Your task to perform on an android device: Search for a new foundation (skincare) product Image 0: 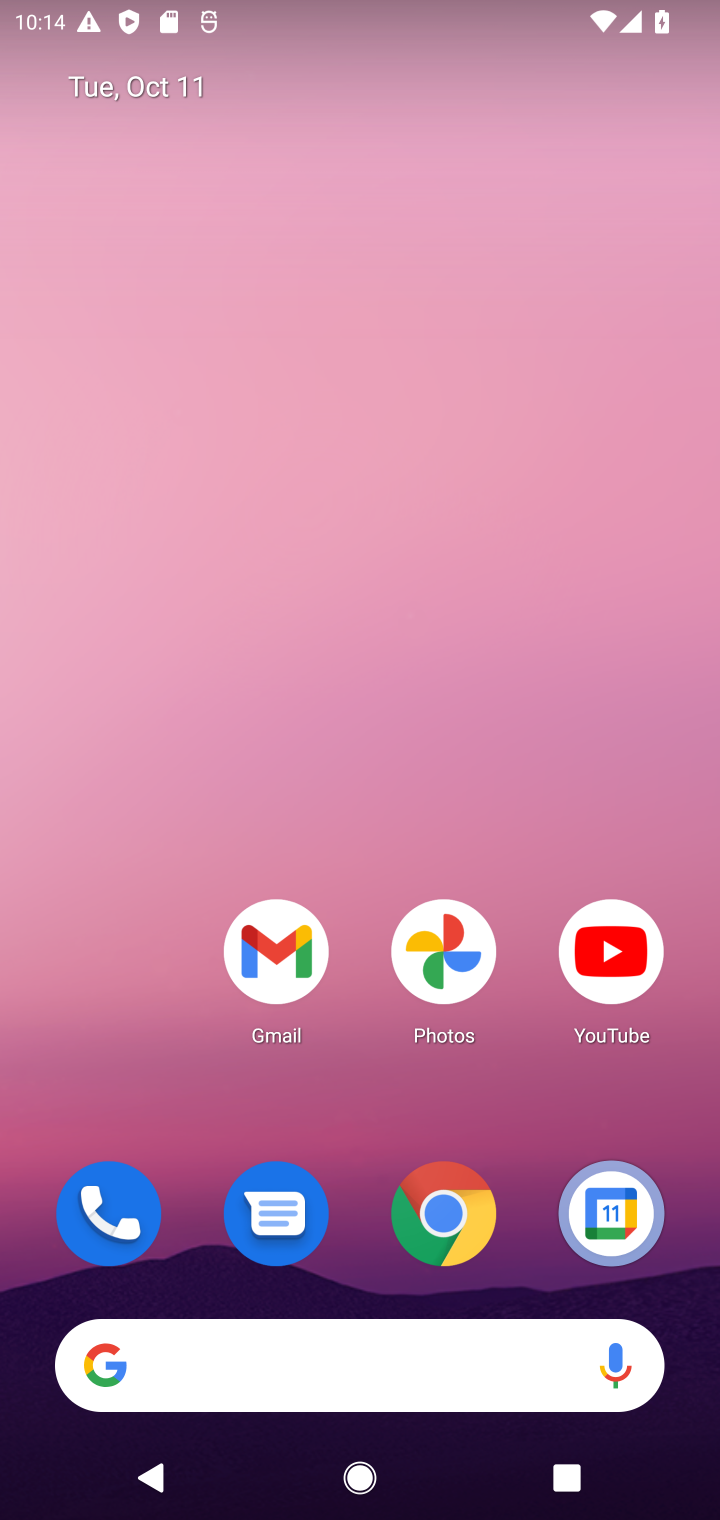
Step 0: click (467, 1231)
Your task to perform on an android device: Search for a new foundation (skincare) product Image 1: 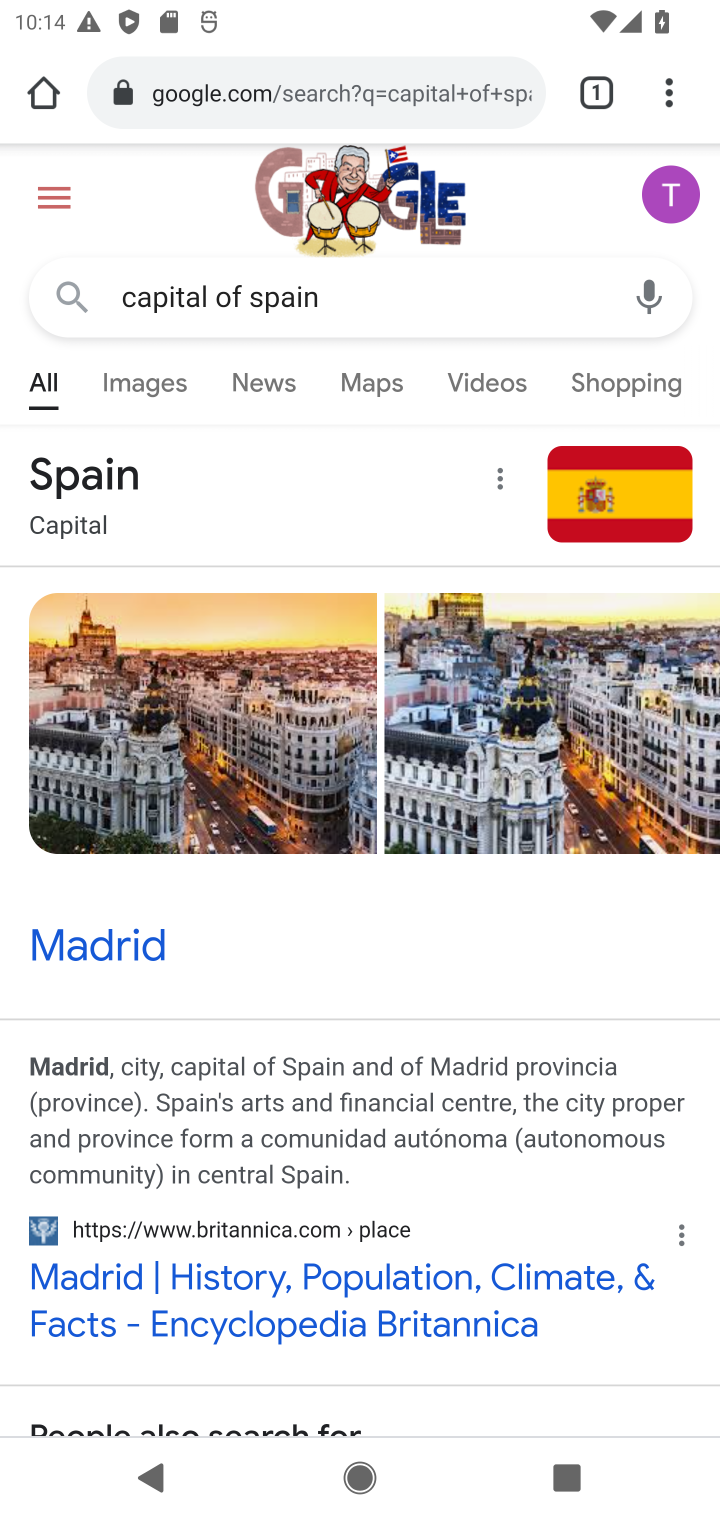
Step 1: click (391, 97)
Your task to perform on an android device: Search for a new foundation (skincare) product Image 2: 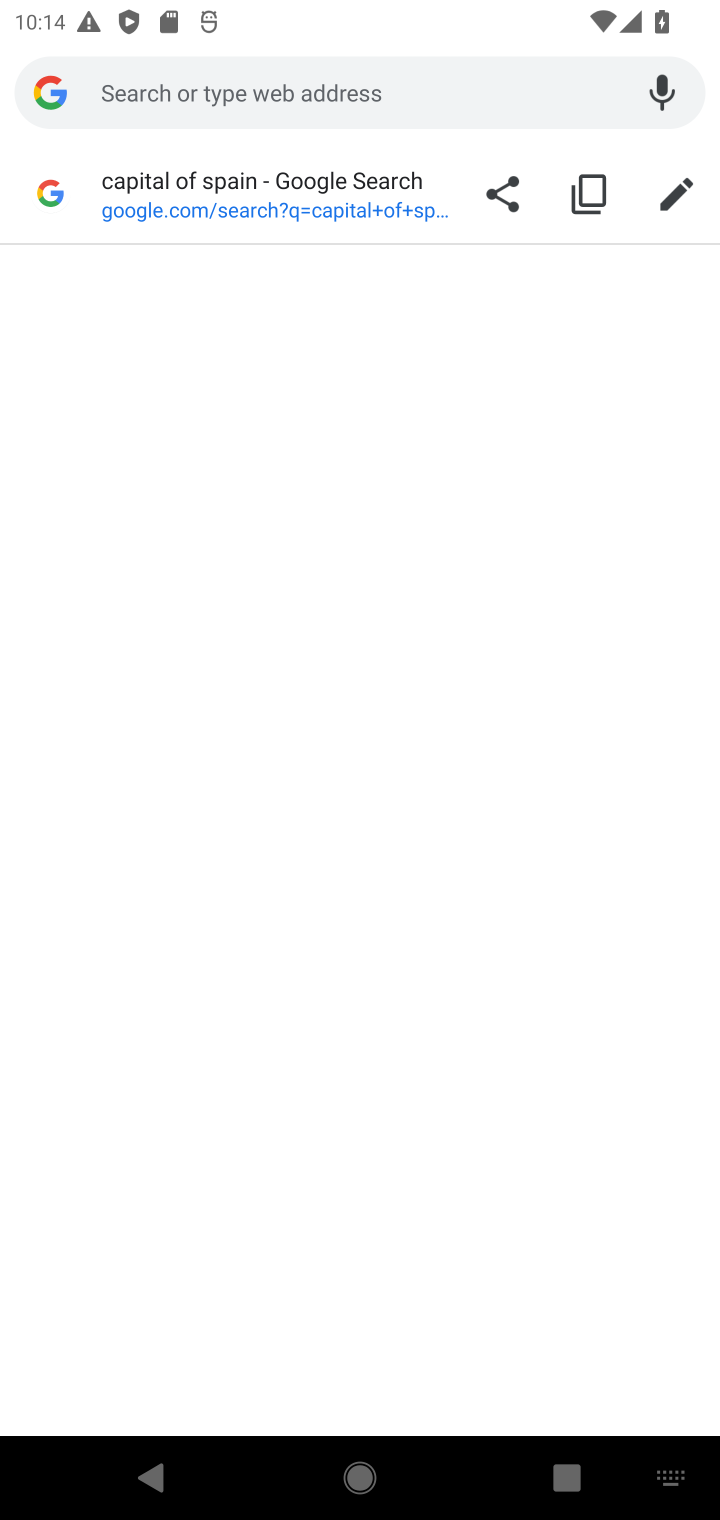
Step 2: type "new foundation (skincare) product"
Your task to perform on an android device: Search for a new foundation (skincare) product Image 3: 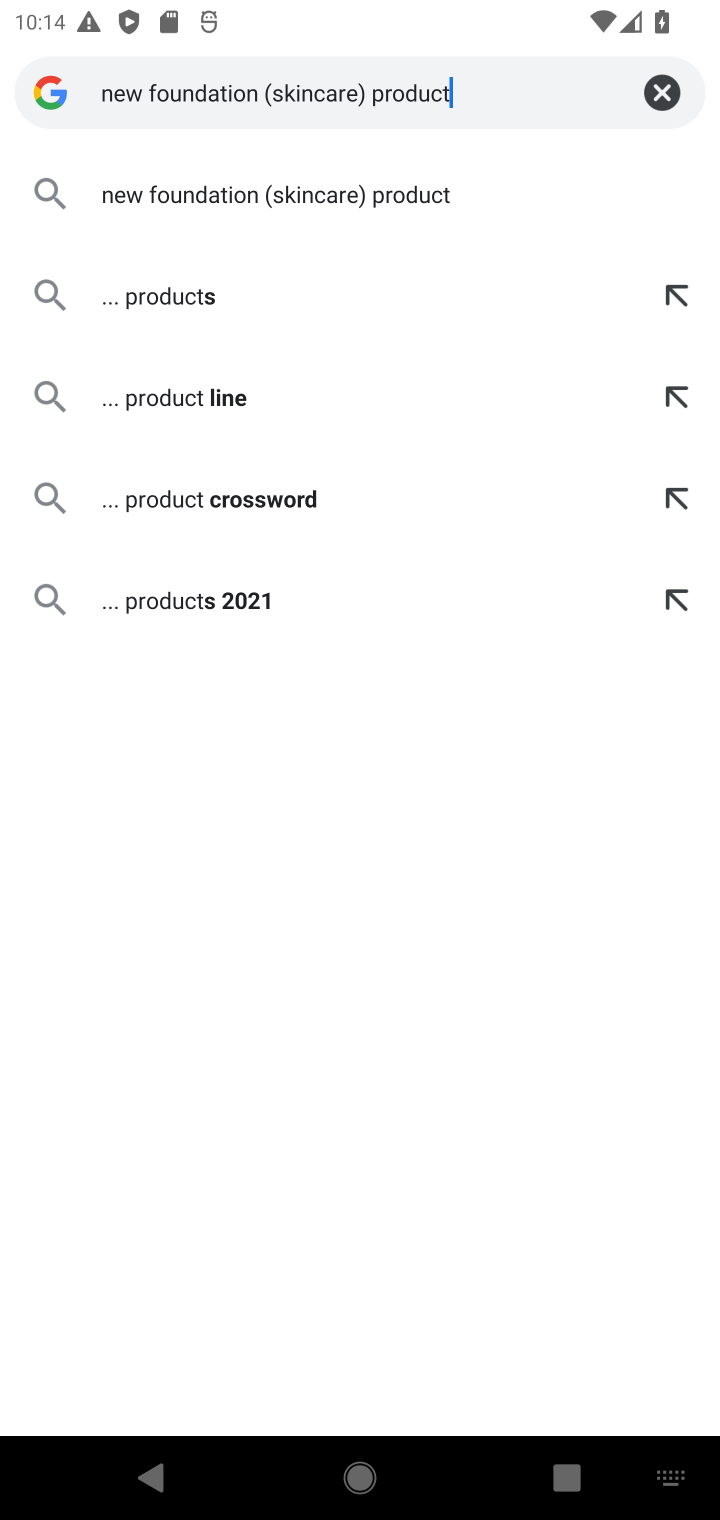
Step 3: click (539, 208)
Your task to perform on an android device: Search for a new foundation (skincare) product Image 4: 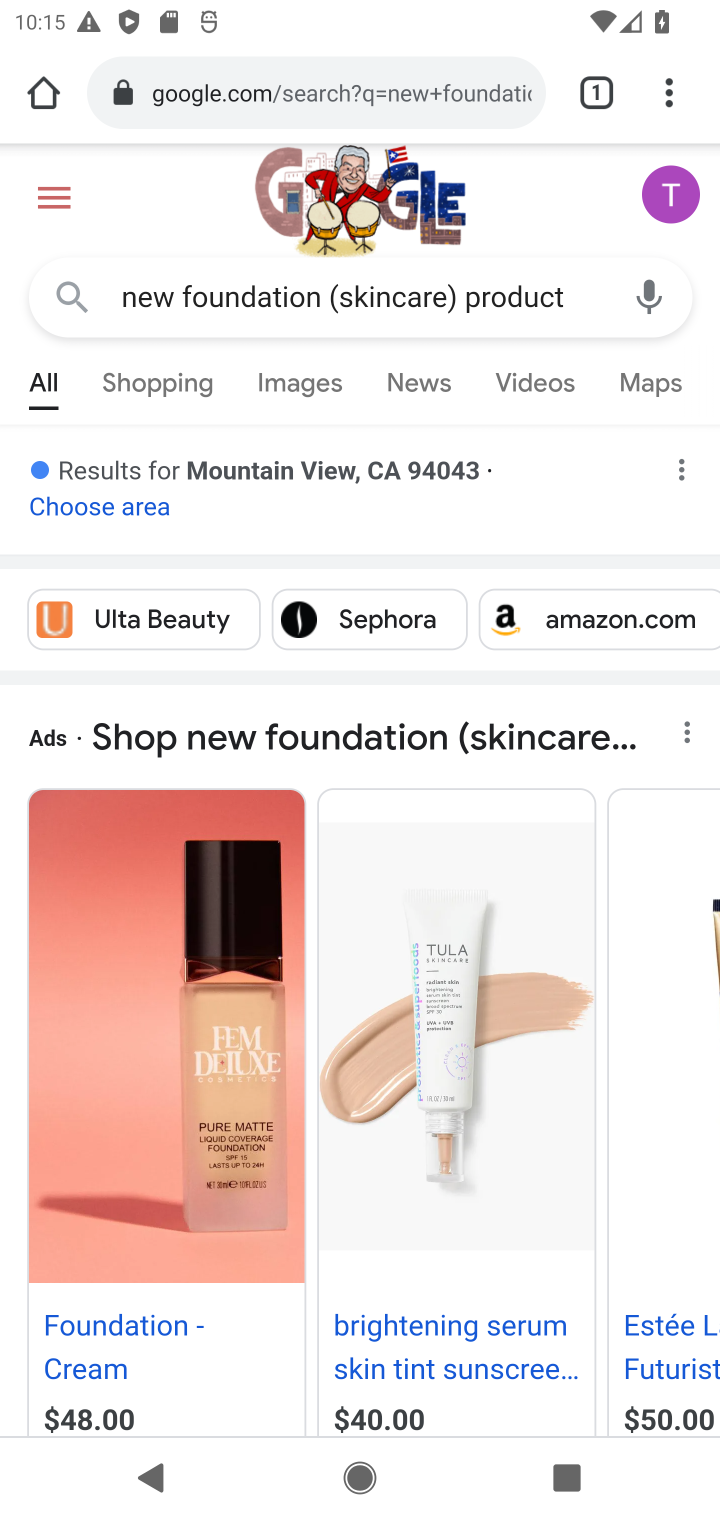
Step 4: task complete